Your task to perform on an android device: Show me popular videos on Youtube Image 0: 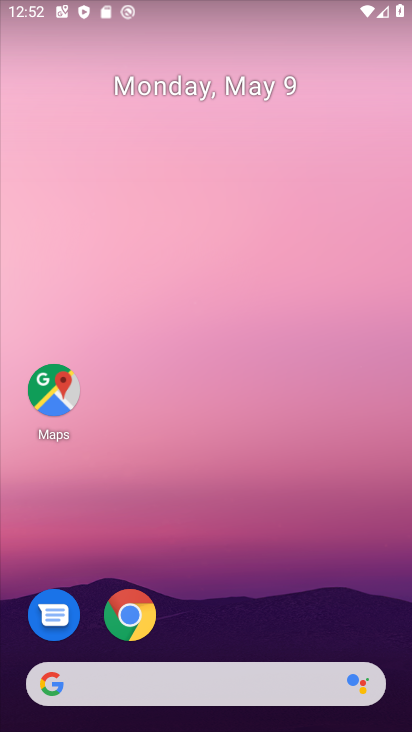
Step 0: drag from (261, 570) to (222, 142)
Your task to perform on an android device: Show me popular videos on Youtube Image 1: 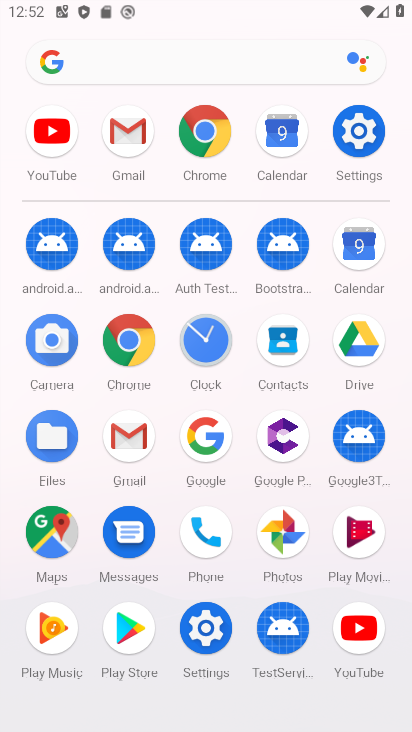
Step 1: click (52, 130)
Your task to perform on an android device: Show me popular videos on Youtube Image 2: 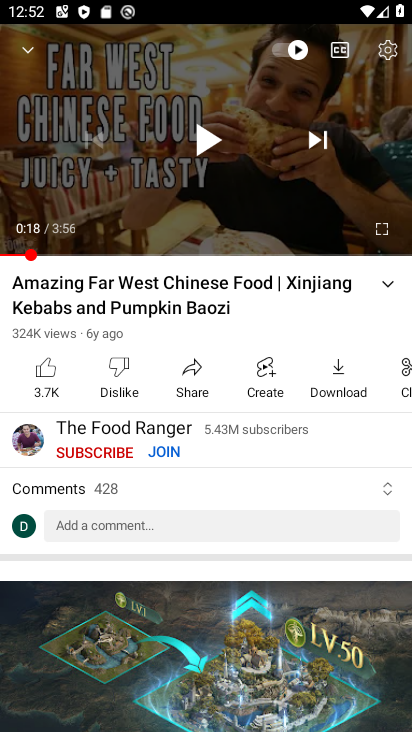
Step 2: press back button
Your task to perform on an android device: Show me popular videos on Youtube Image 3: 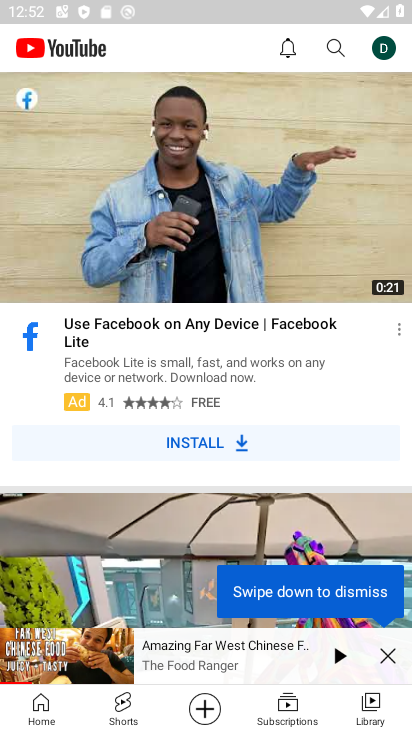
Step 3: click (387, 659)
Your task to perform on an android device: Show me popular videos on Youtube Image 4: 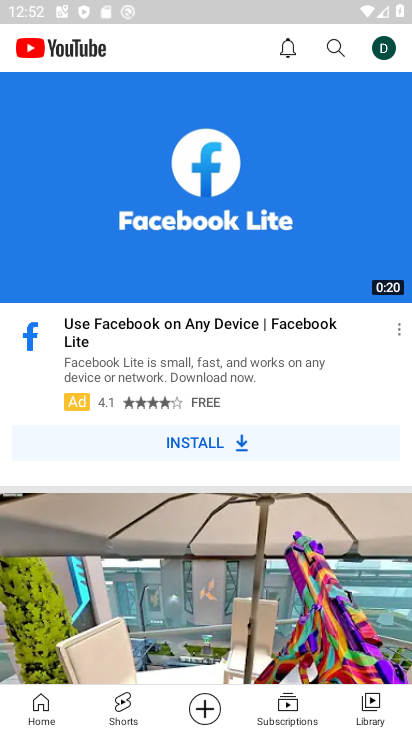
Step 4: click (340, 57)
Your task to perform on an android device: Show me popular videos on Youtube Image 5: 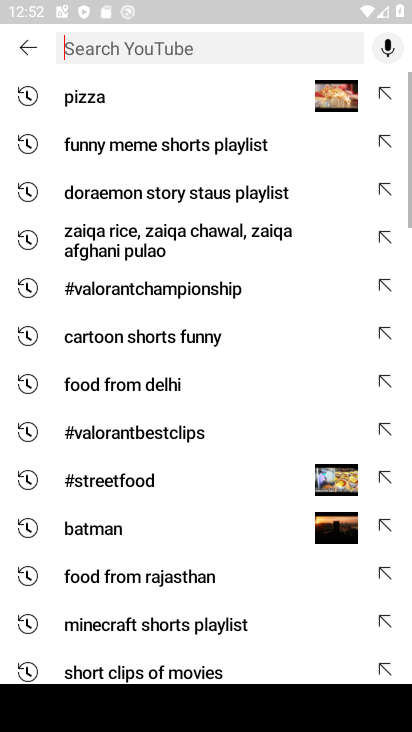
Step 5: click (202, 32)
Your task to perform on an android device: Show me popular videos on Youtube Image 6: 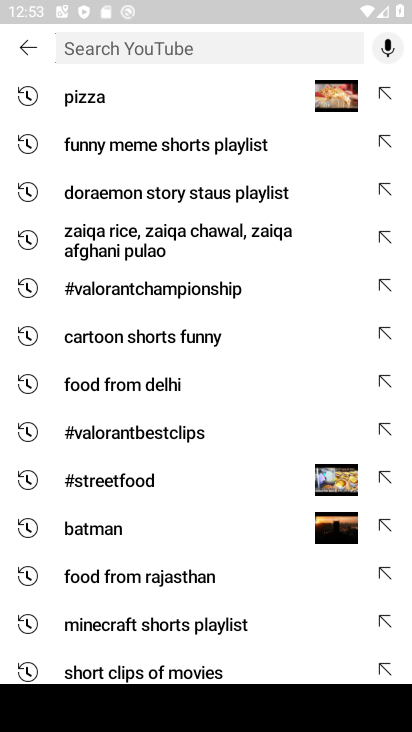
Step 6: type "popular videos"
Your task to perform on an android device: Show me popular videos on Youtube Image 7: 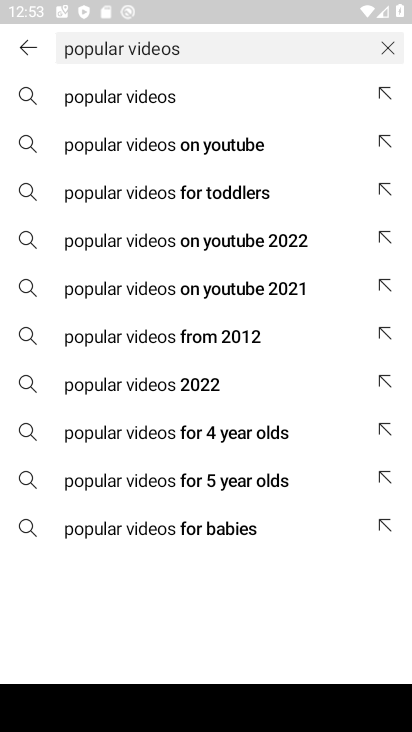
Step 7: click (169, 149)
Your task to perform on an android device: Show me popular videos on Youtube Image 8: 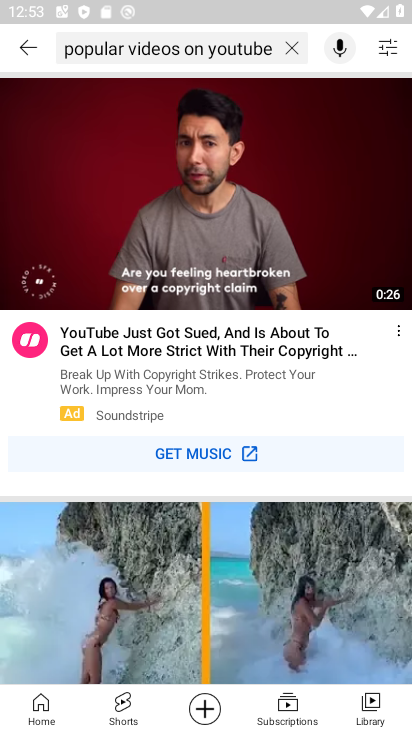
Step 8: task complete